Your task to perform on an android device: Go to display settings Image 0: 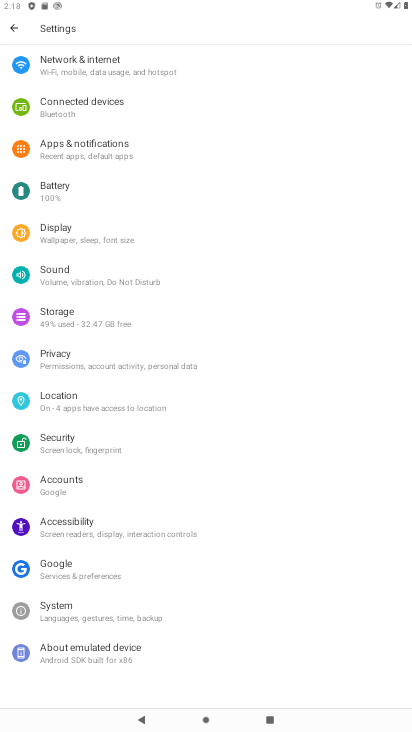
Step 0: click (53, 232)
Your task to perform on an android device: Go to display settings Image 1: 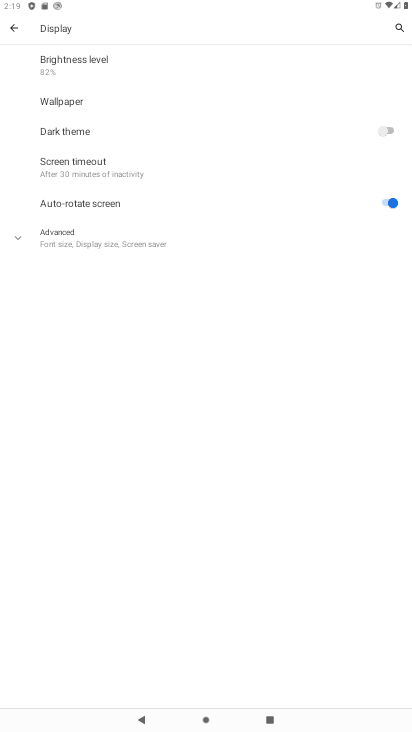
Step 1: task complete